Your task to perform on an android device: visit the assistant section in the google photos Image 0: 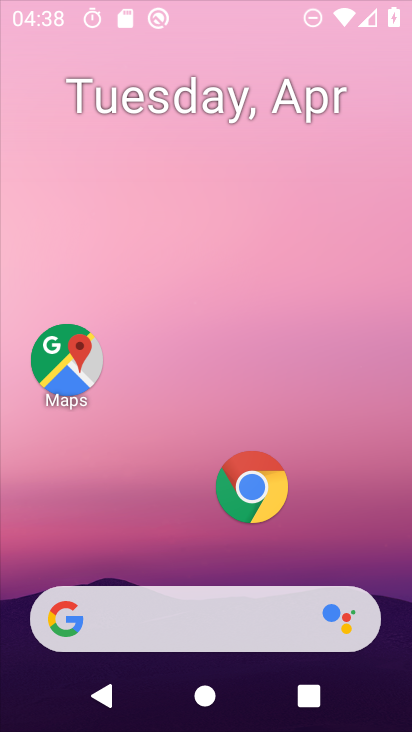
Step 0: click (215, 8)
Your task to perform on an android device: visit the assistant section in the google photos Image 1: 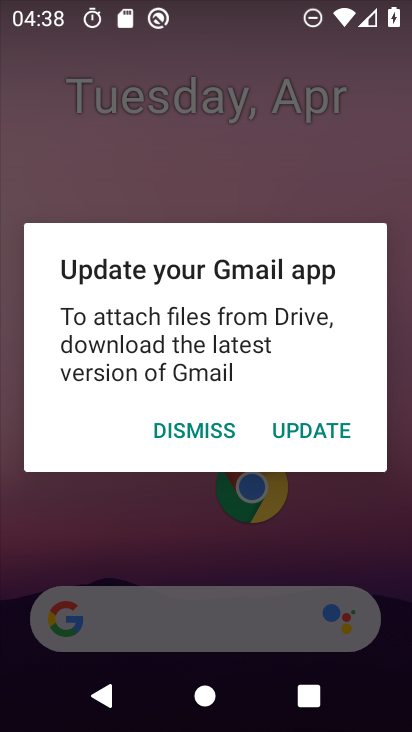
Step 1: click (127, 512)
Your task to perform on an android device: visit the assistant section in the google photos Image 2: 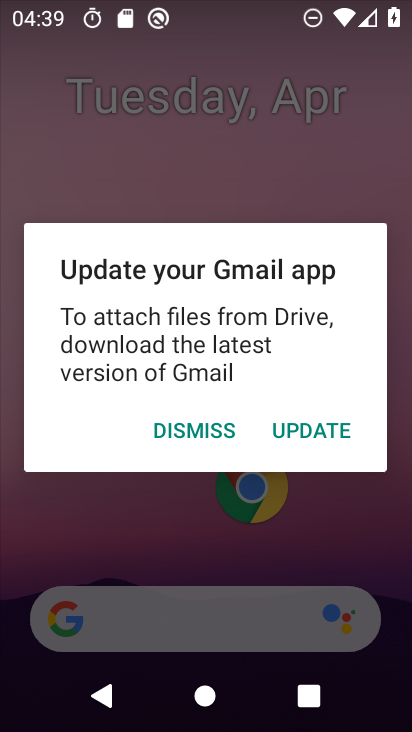
Step 2: press home button
Your task to perform on an android device: visit the assistant section in the google photos Image 3: 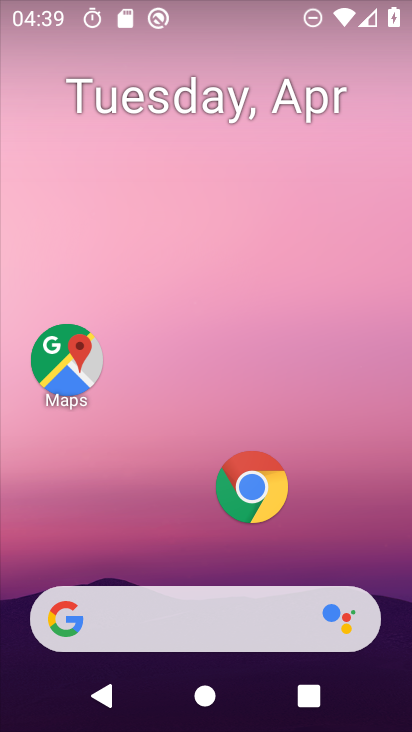
Step 3: drag from (132, 508) to (263, 61)
Your task to perform on an android device: visit the assistant section in the google photos Image 4: 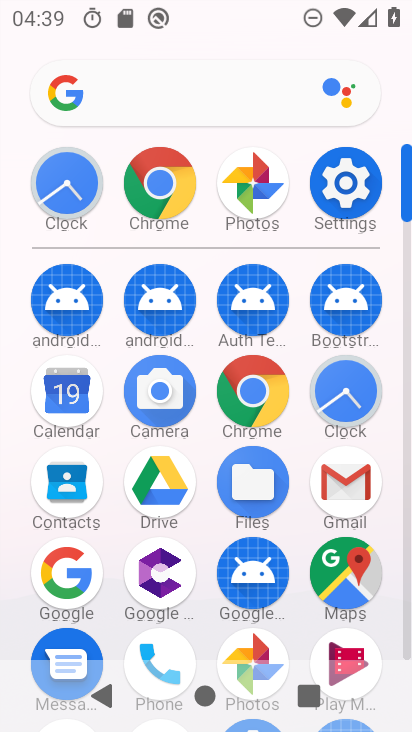
Step 4: click (254, 637)
Your task to perform on an android device: visit the assistant section in the google photos Image 5: 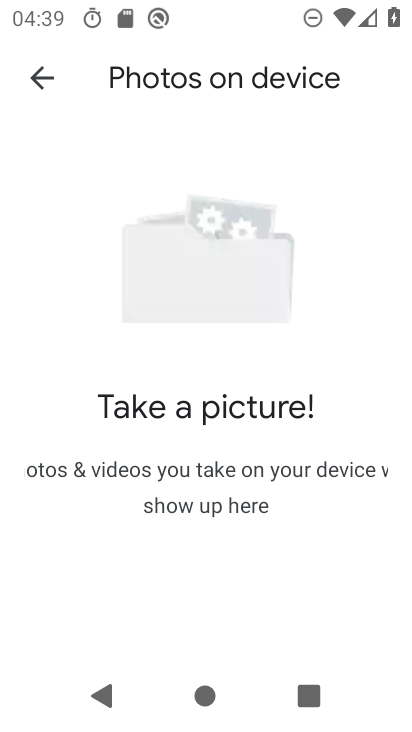
Step 5: click (40, 83)
Your task to perform on an android device: visit the assistant section in the google photos Image 6: 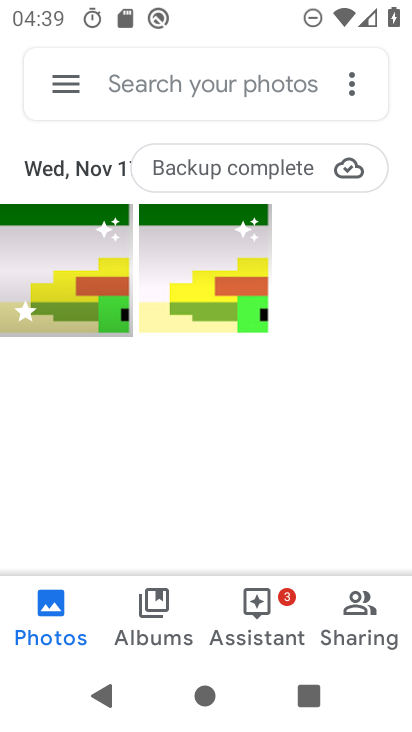
Step 6: click (267, 631)
Your task to perform on an android device: visit the assistant section in the google photos Image 7: 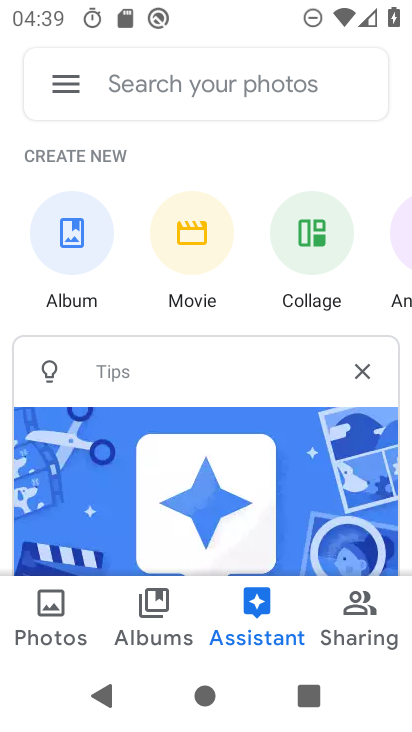
Step 7: task complete